Your task to perform on an android device: Open Android settings Image 0: 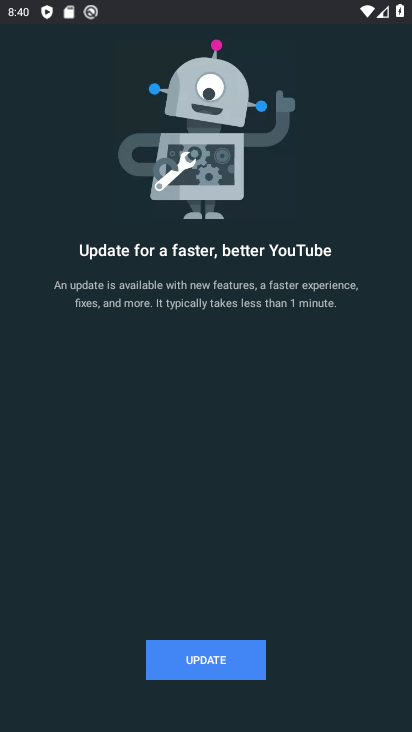
Step 0: click (283, 634)
Your task to perform on an android device: Open Android settings Image 1: 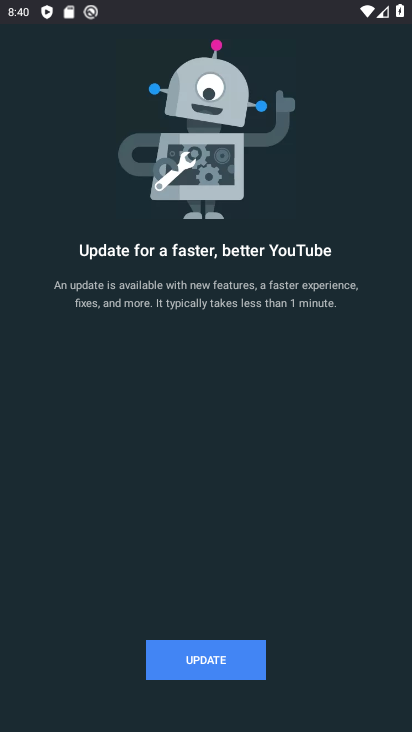
Step 1: press home button
Your task to perform on an android device: Open Android settings Image 2: 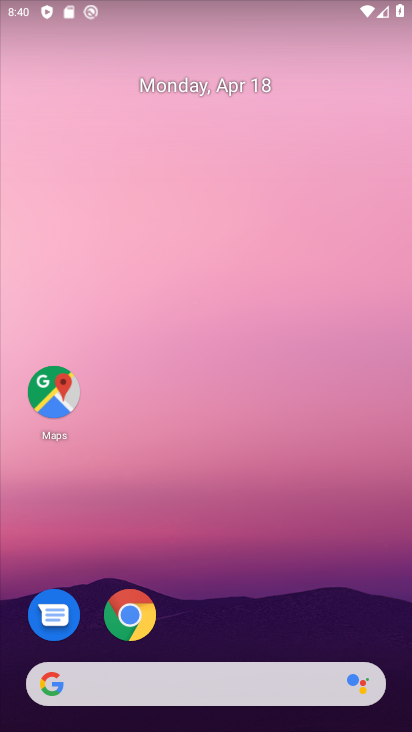
Step 2: drag from (332, 614) to (344, 134)
Your task to perform on an android device: Open Android settings Image 3: 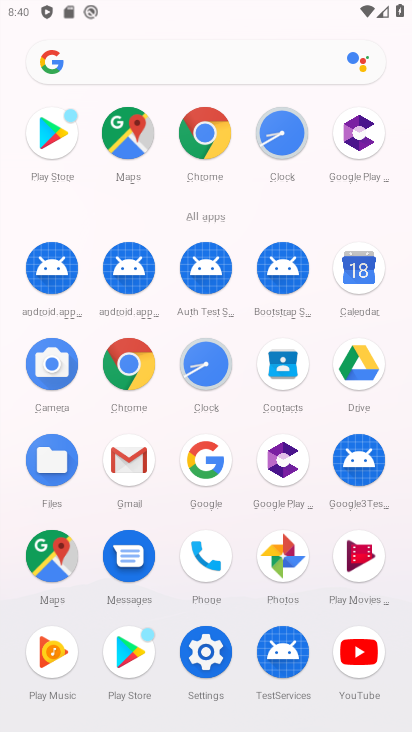
Step 3: click (203, 649)
Your task to perform on an android device: Open Android settings Image 4: 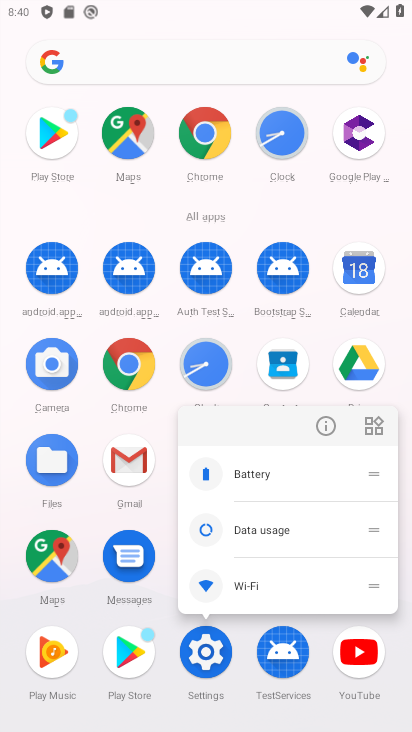
Step 4: click (204, 645)
Your task to perform on an android device: Open Android settings Image 5: 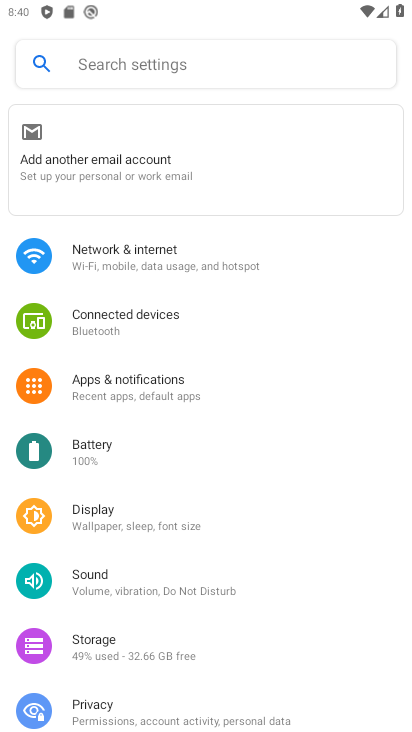
Step 5: drag from (251, 662) to (322, 252)
Your task to perform on an android device: Open Android settings Image 6: 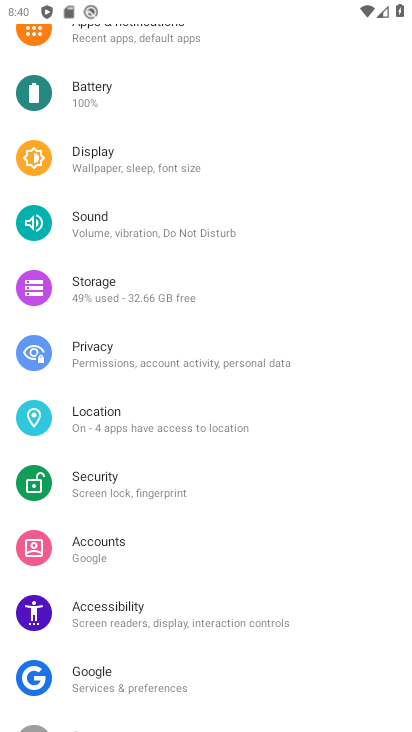
Step 6: drag from (224, 637) to (301, 180)
Your task to perform on an android device: Open Android settings Image 7: 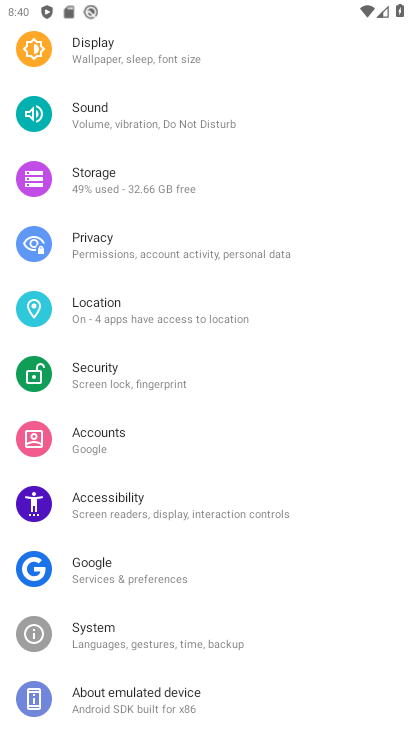
Step 7: click (114, 706)
Your task to perform on an android device: Open Android settings Image 8: 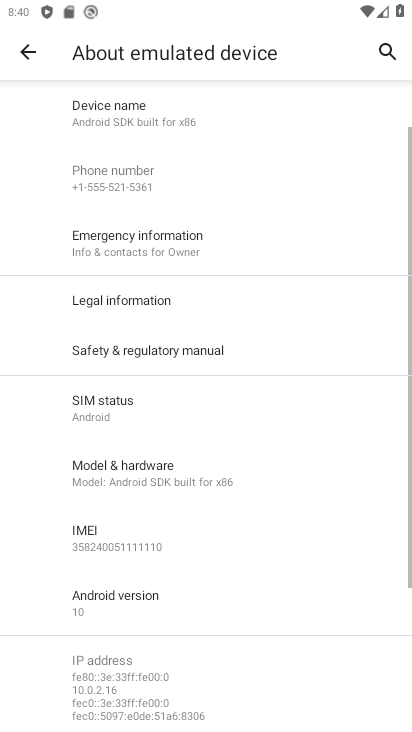
Step 8: task complete